Your task to perform on an android device: toggle improve location accuracy Image 0: 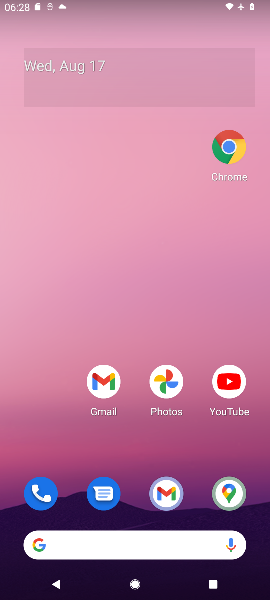
Step 0: drag from (142, 513) to (137, 1)
Your task to perform on an android device: toggle improve location accuracy Image 1: 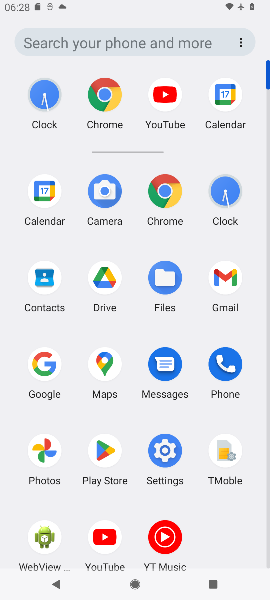
Step 1: click (162, 448)
Your task to perform on an android device: toggle improve location accuracy Image 2: 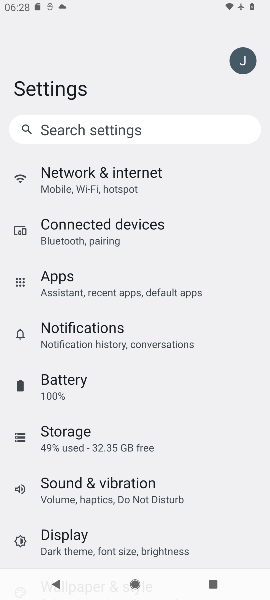
Step 2: drag from (246, 478) to (247, 167)
Your task to perform on an android device: toggle improve location accuracy Image 3: 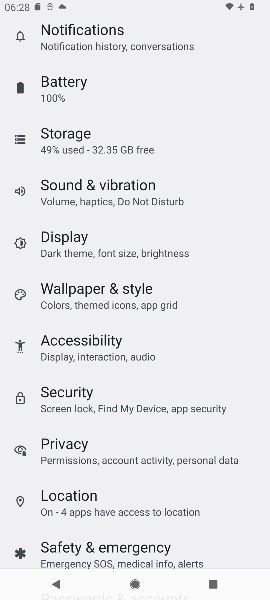
Step 3: click (78, 498)
Your task to perform on an android device: toggle improve location accuracy Image 4: 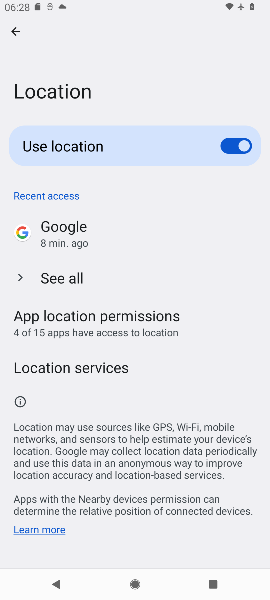
Step 4: click (90, 367)
Your task to perform on an android device: toggle improve location accuracy Image 5: 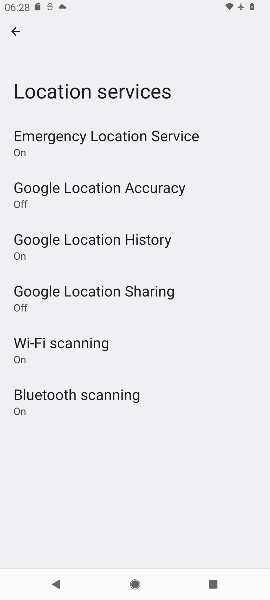
Step 5: click (161, 186)
Your task to perform on an android device: toggle improve location accuracy Image 6: 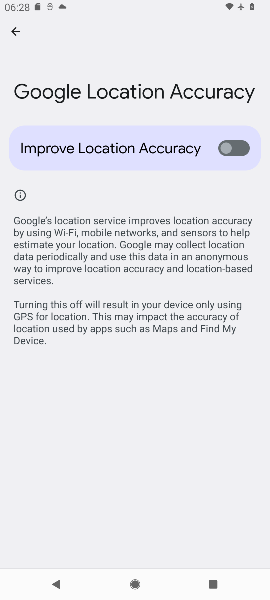
Step 6: click (228, 147)
Your task to perform on an android device: toggle improve location accuracy Image 7: 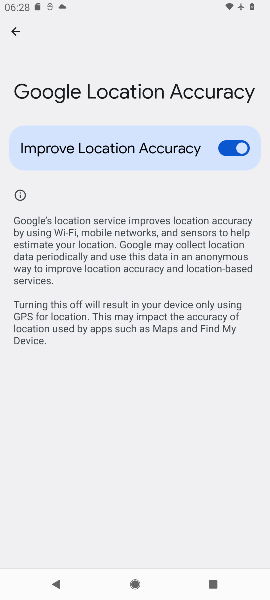
Step 7: task complete